Your task to perform on an android device: Clear the shopping cart on walmart.com. Search for corsair k70 on walmart.com, select the first entry, and add it to the cart. Image 0: 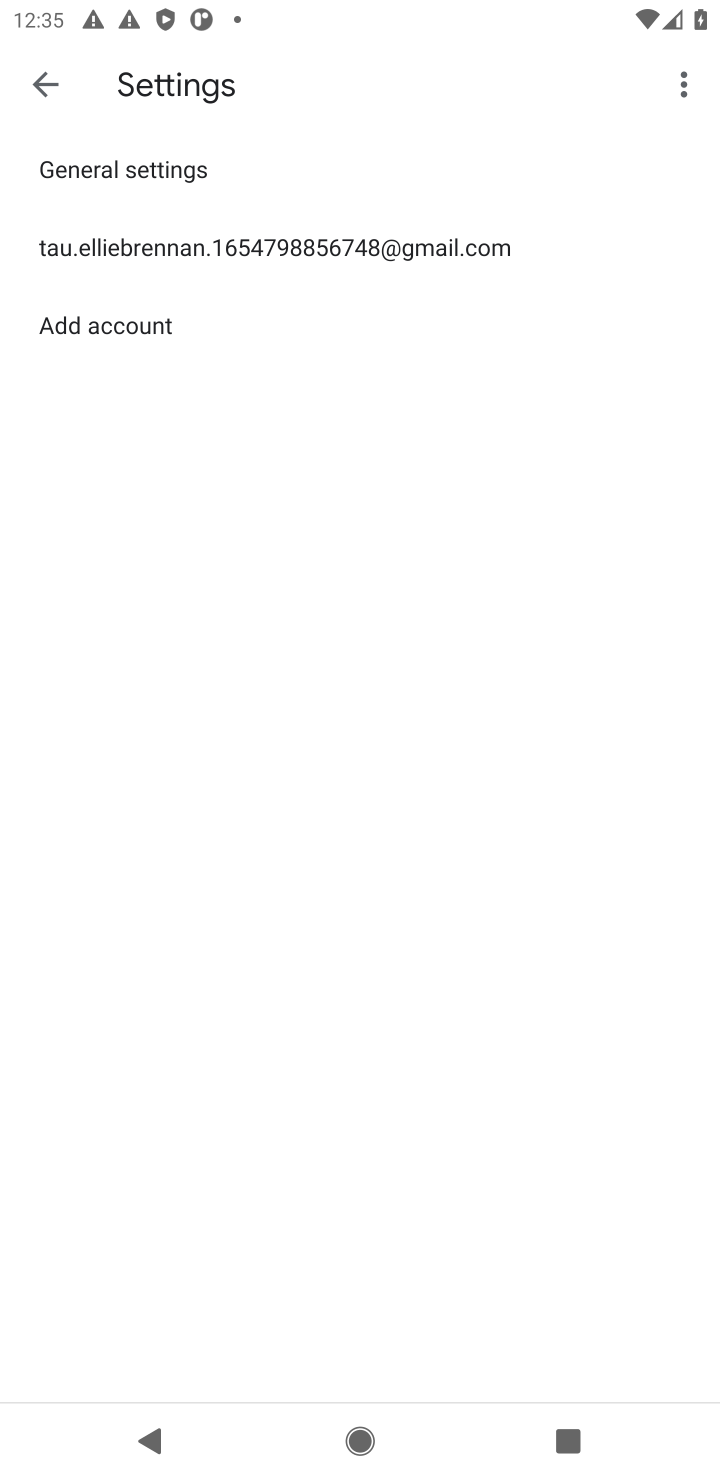
Step 0: press home button
Your task to perform on an android device: Clear the shopping cart on walmart.com. Search for corsair k70 on walmart.com, select the first entry, and add it to the cart. Image 1: 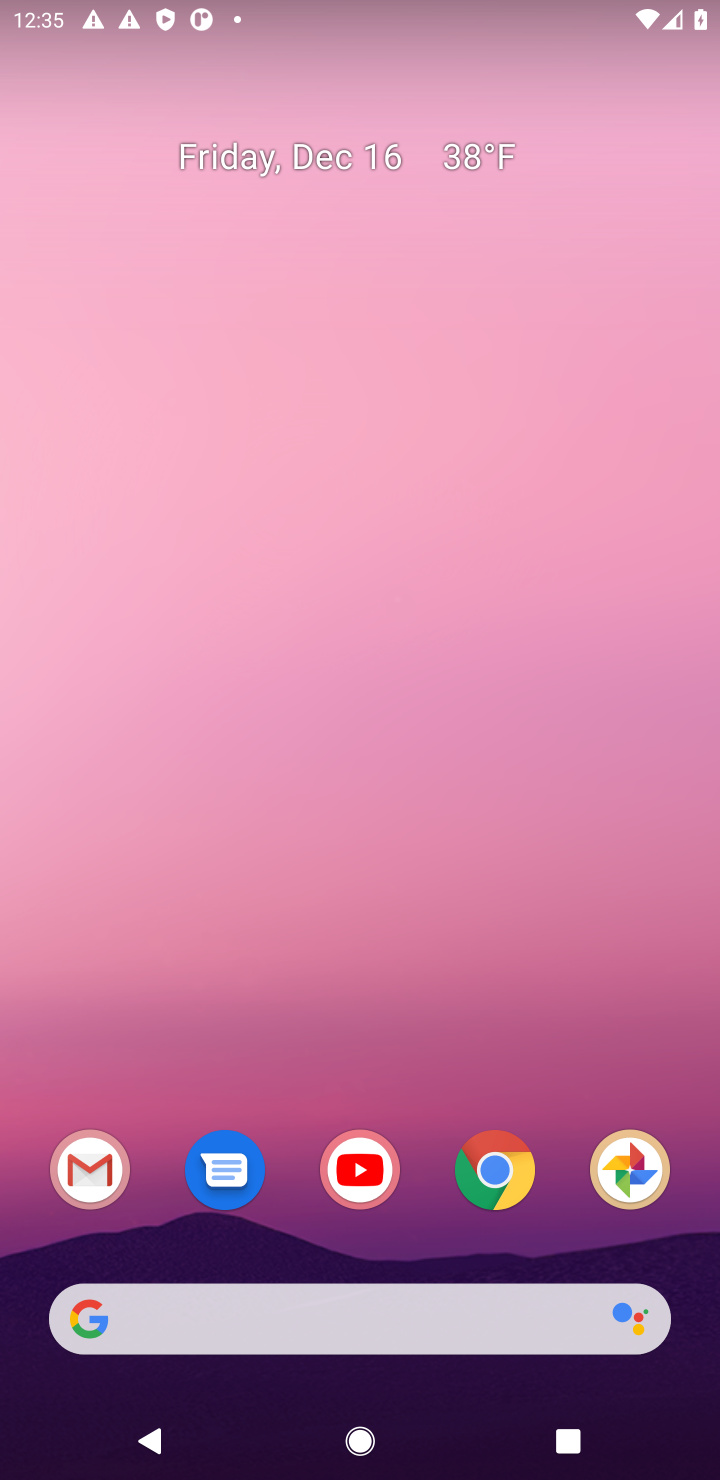
Step 1: click (503, 1174)
Your task to perform on an android device: Clear the shopping cart on walmart.com. Search for corsair k70 on walmart.com, select the first entry, and add it to the cart. Image 2: 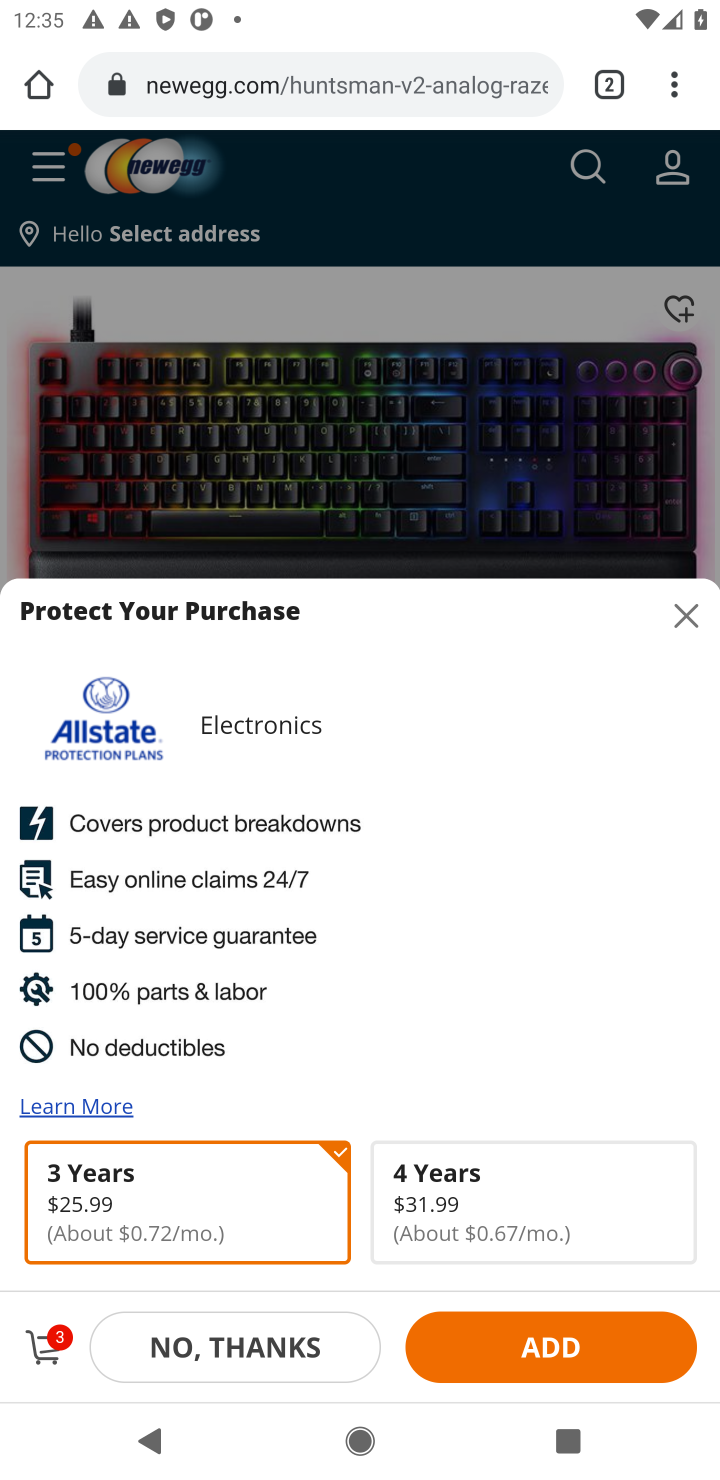
Step 2: click (230, 89)
Your task to perform on an android device: Clear the shopping cart on walmart.com. Search for corsair k70 on walmart.com, select the first entry, and add it to the cart. Image 3: 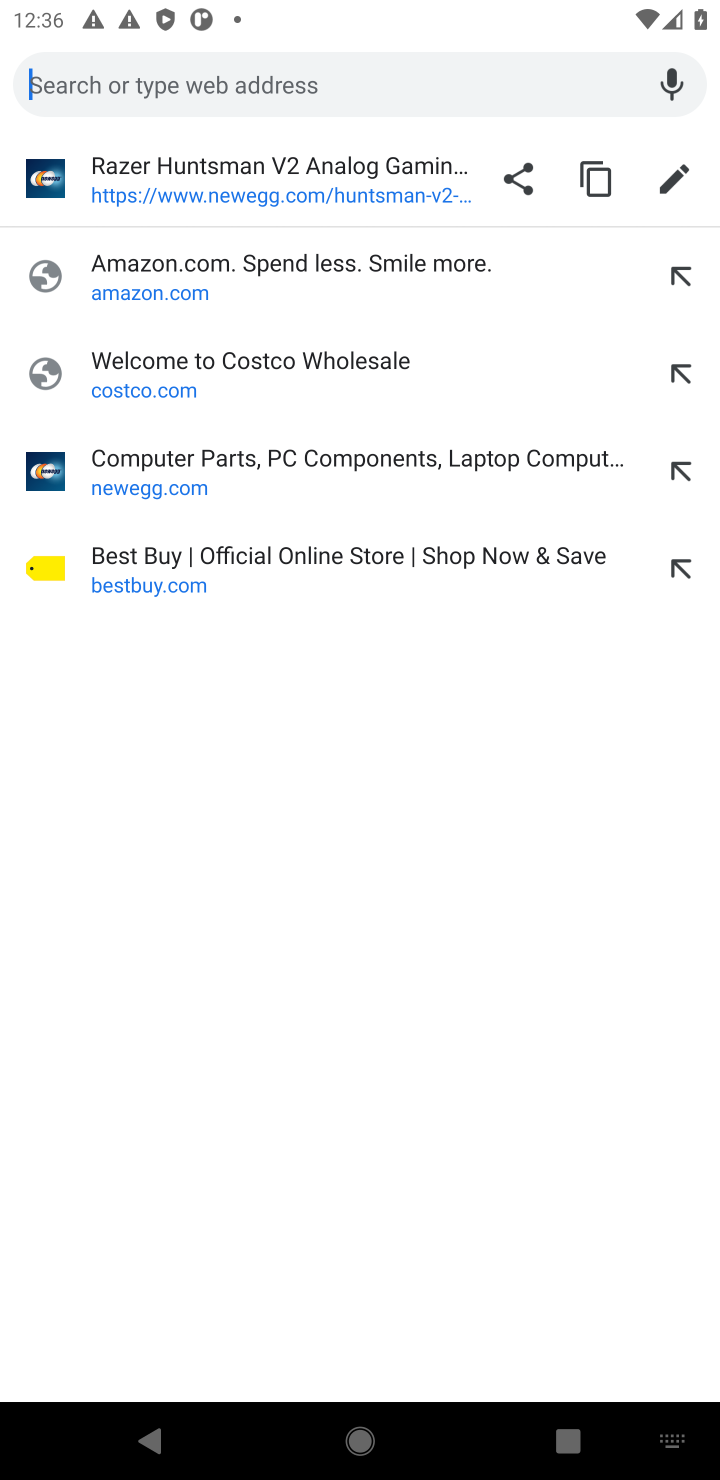
Step 3: type "walmart.com"
Your task to perform on an android device: Clear the shopping cart on walmart.com. Search for corsair k70 on walmart.com, select the first entry, and add it to the cart. Image 4: 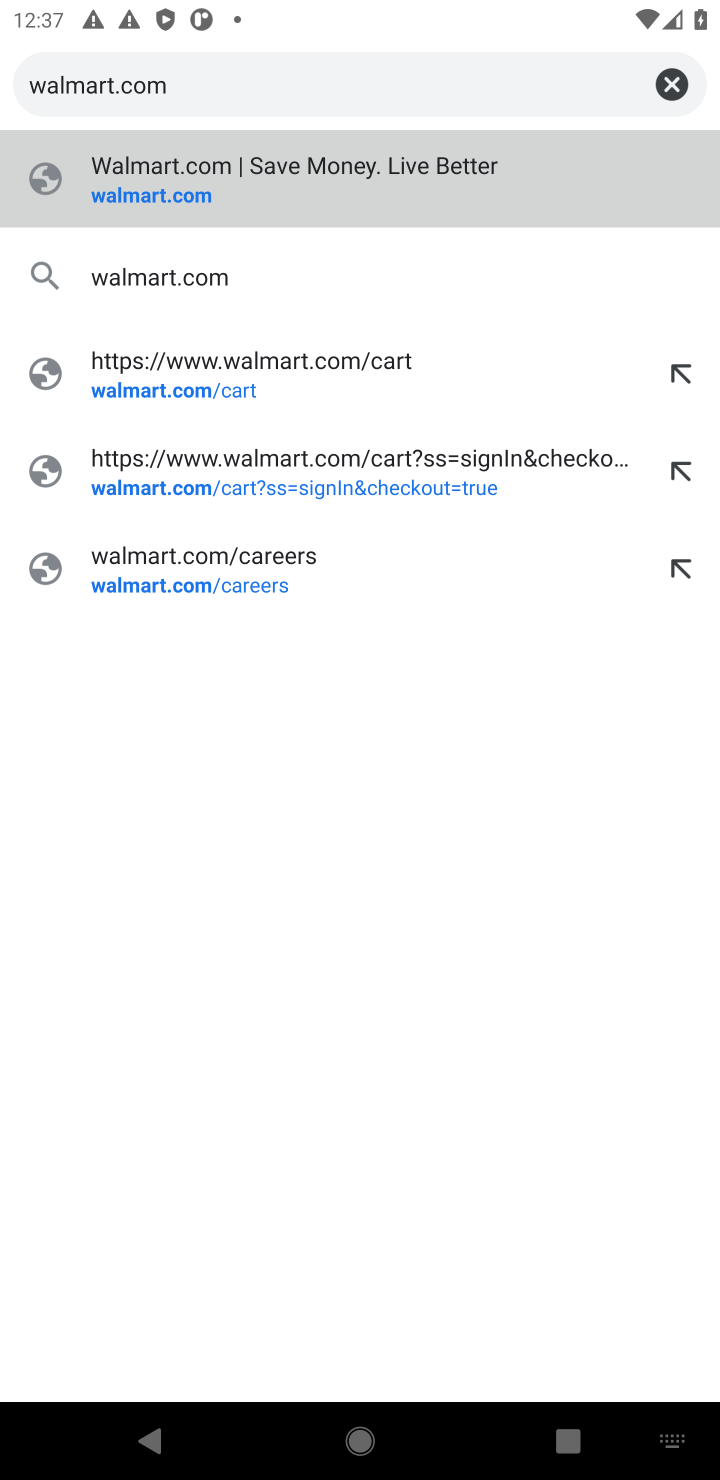
Step 4: click (178, 199)
Your task to perform on an android device: Clear the shopping cart on walmart.com. Search for corsair k70 on walmart.com, select the first entry, and add it to the cart. Image 5: 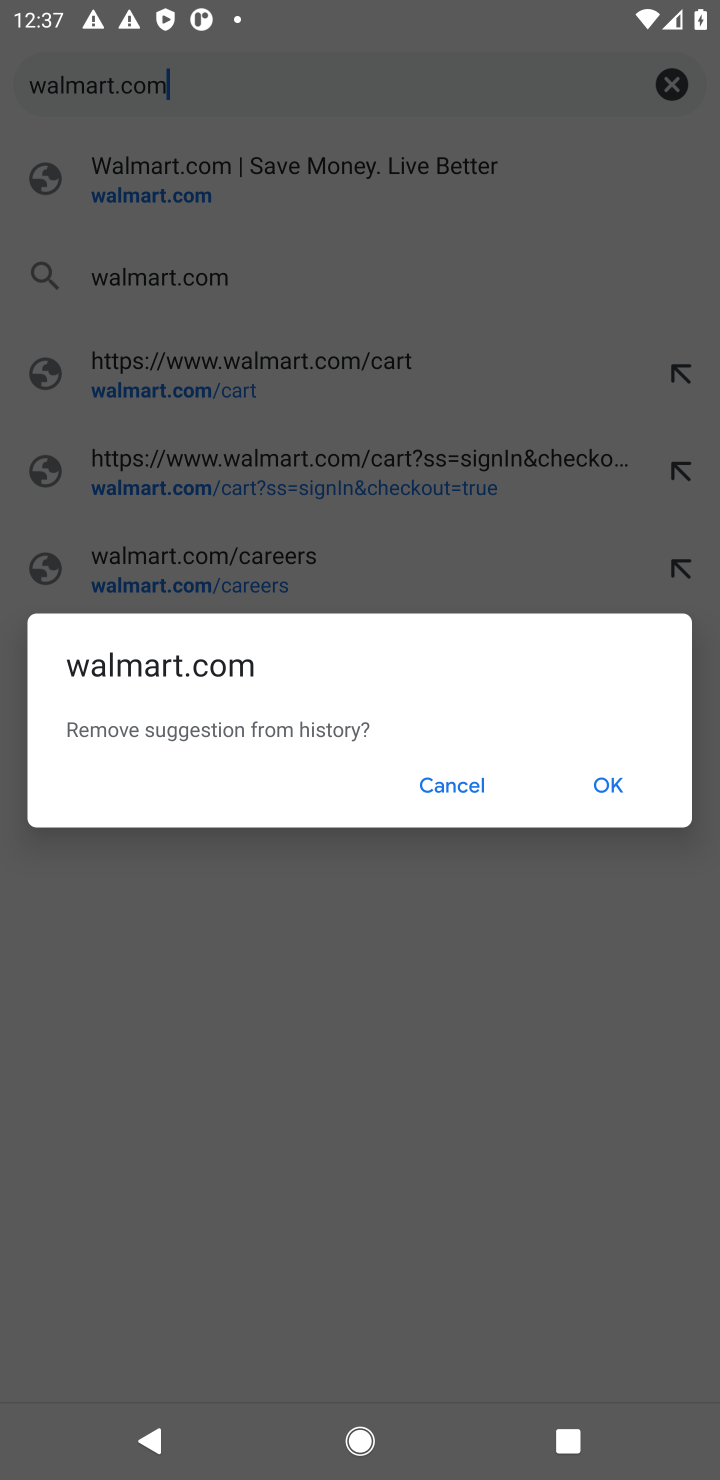
Step 5: click (460, 792)
Your task to perform on an android device: Clear the shopping cart on walmart.com. Search for corsair k70 on walmart.com, select the first entry, and add it to the cart. Image 6: 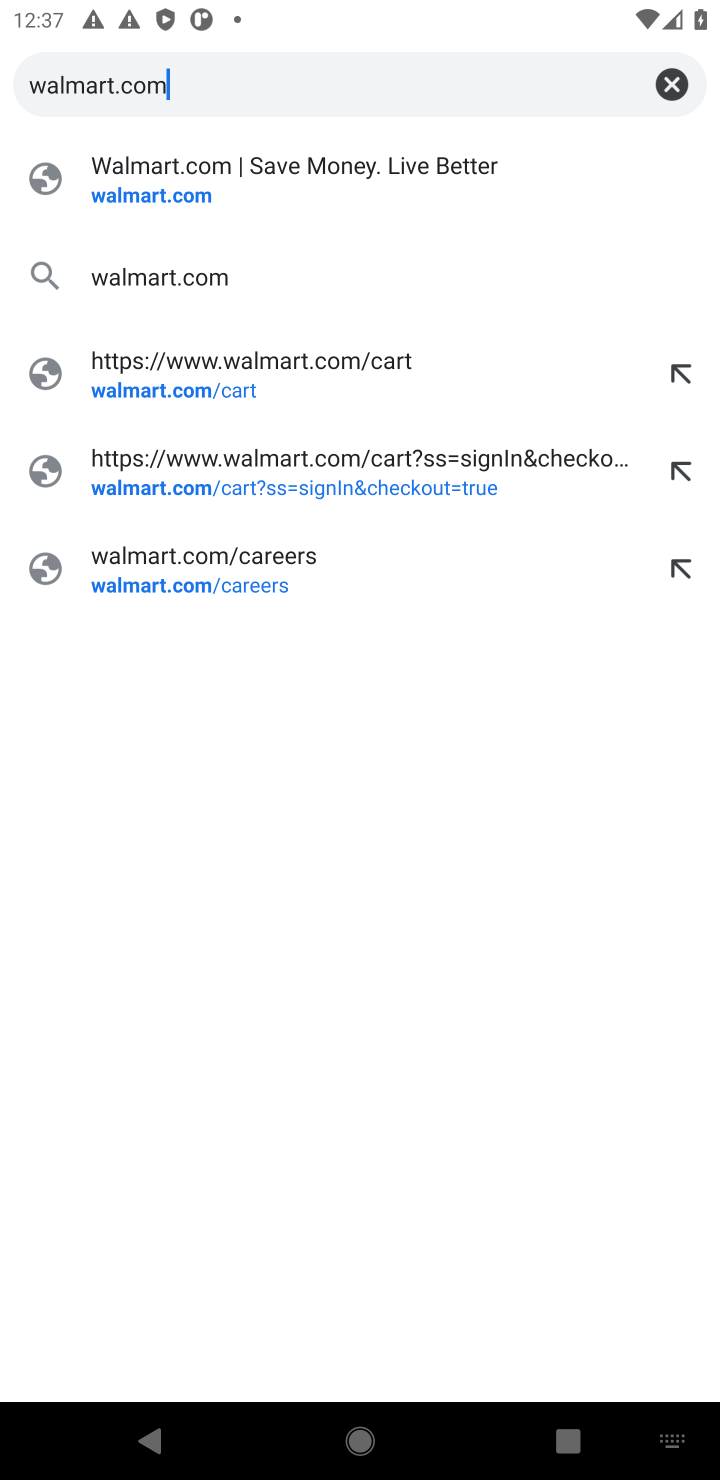
Step 6: click (155, 177)
Your task to perform on an android device: Clear the shopping cart on walmart.com. Search for corsair k70 on walmart.com, select the first entry, and add it to the cart. Image 7: 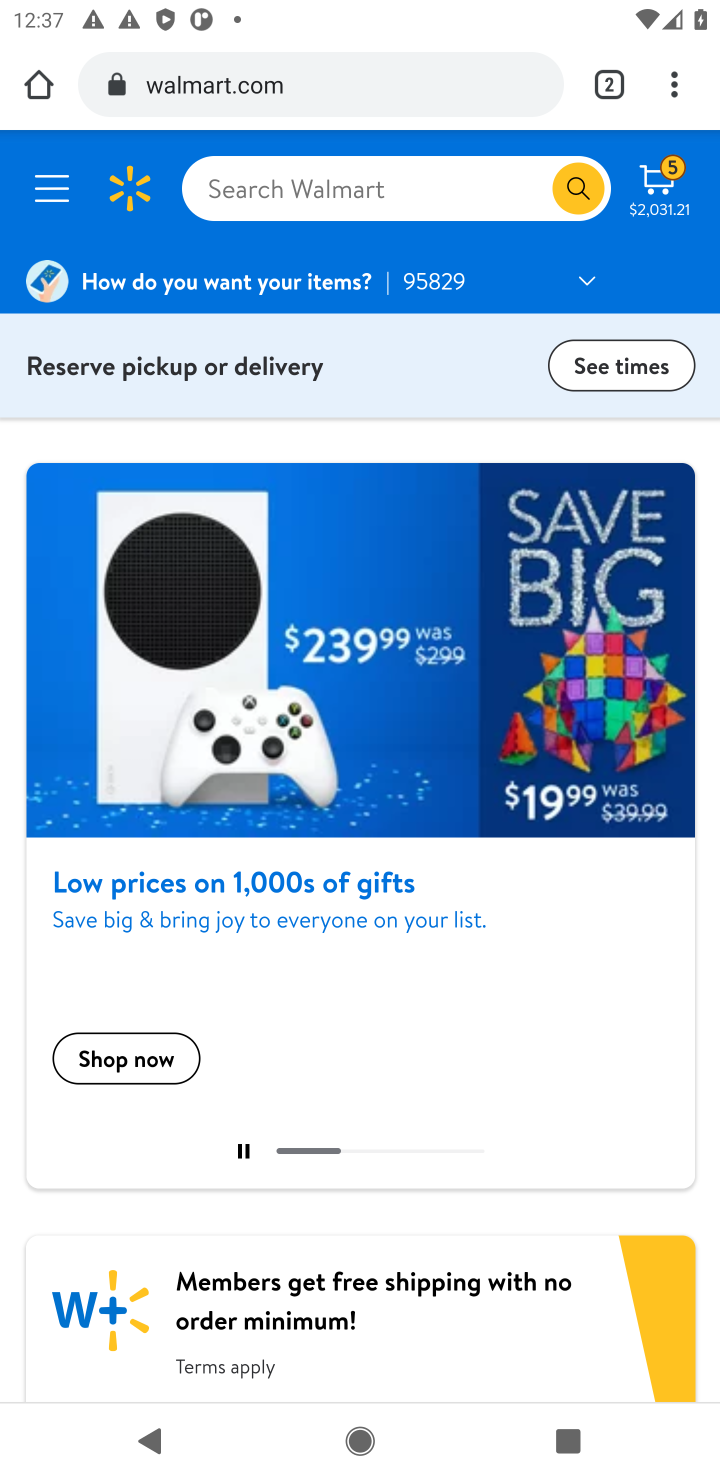
Step 7: click (664, 183)
Your task to perform on an android device: Clear the shopping cart on walmart.com. Search for corsair k70 on walmart.com, select the first entry, and add it to the cart. Image 8: 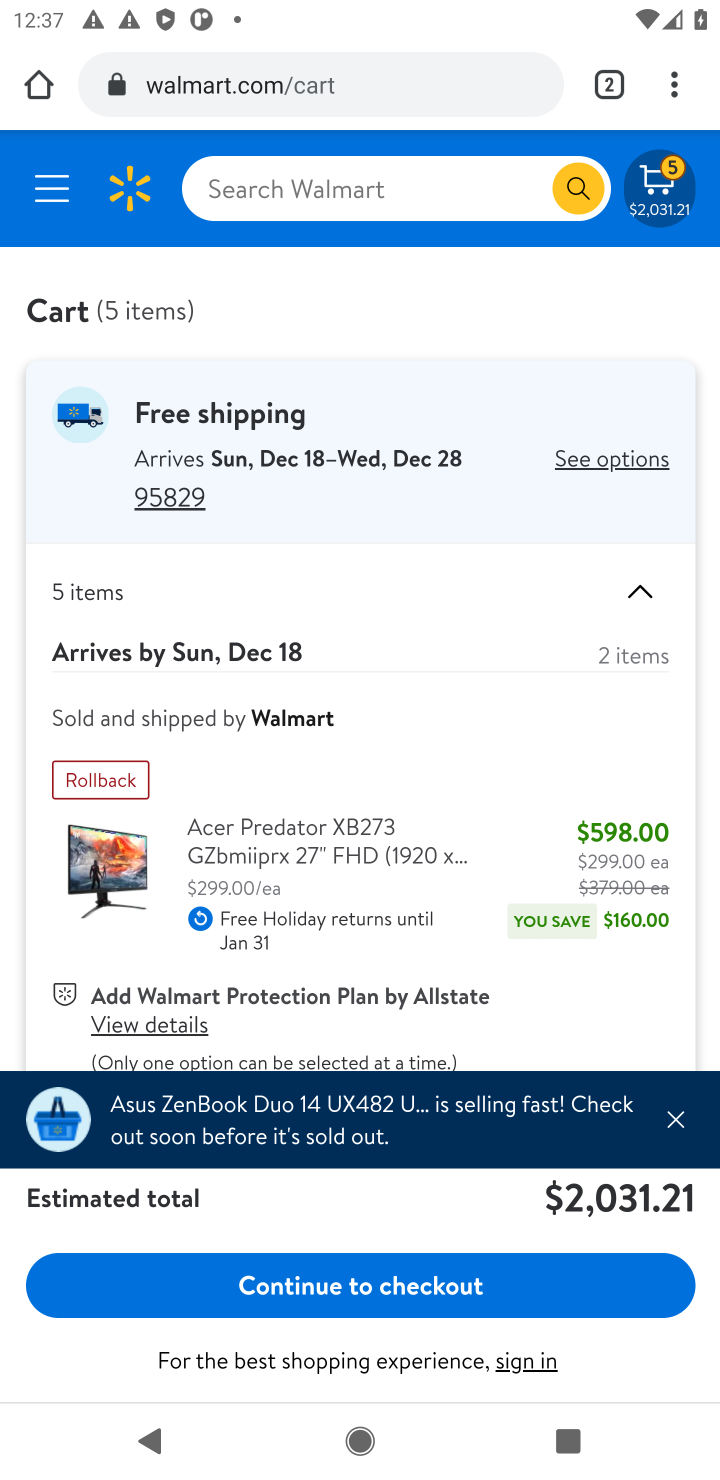
Step 8: drag from (410, 751) to (414, 363)
Your task to perform on an android device: Clear the shopping cart on walmart.com. Search for corsair k70 on walmart.com, select the first entry, and add it to the cart. Image 9: 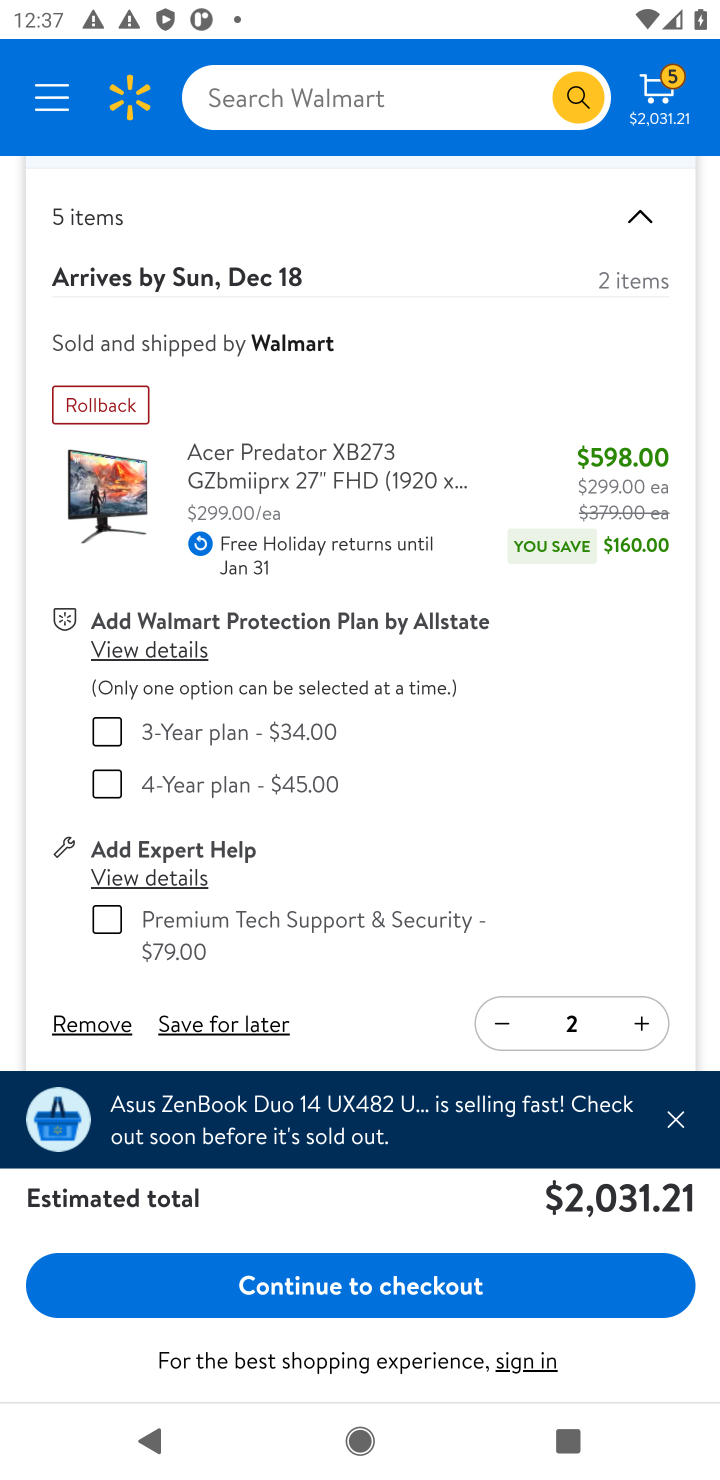
Step 9: drag from (310, 753) to (323, 388)
Your task to perform on an android device: Clear the shopping cart on walmart.com. Search for corsair k70 on walmart.com, select the first entry, and add it to the cart. Image 10: 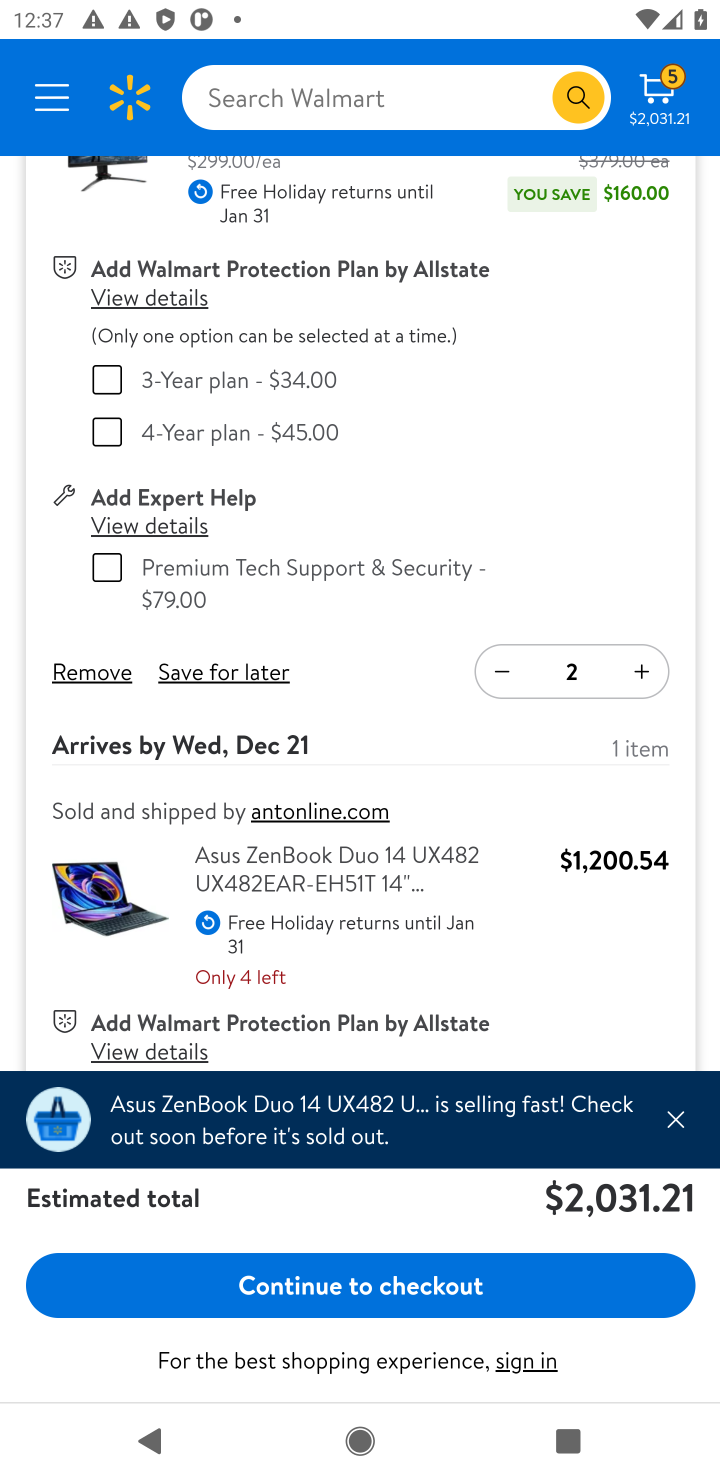
Step 10: click (74, 675)
Your task to perform on an android device: Clear the shopping cart on walmart.com. Search for corsair k70 on walmart.com, select the first entry, and add it to the cart. Image 11: 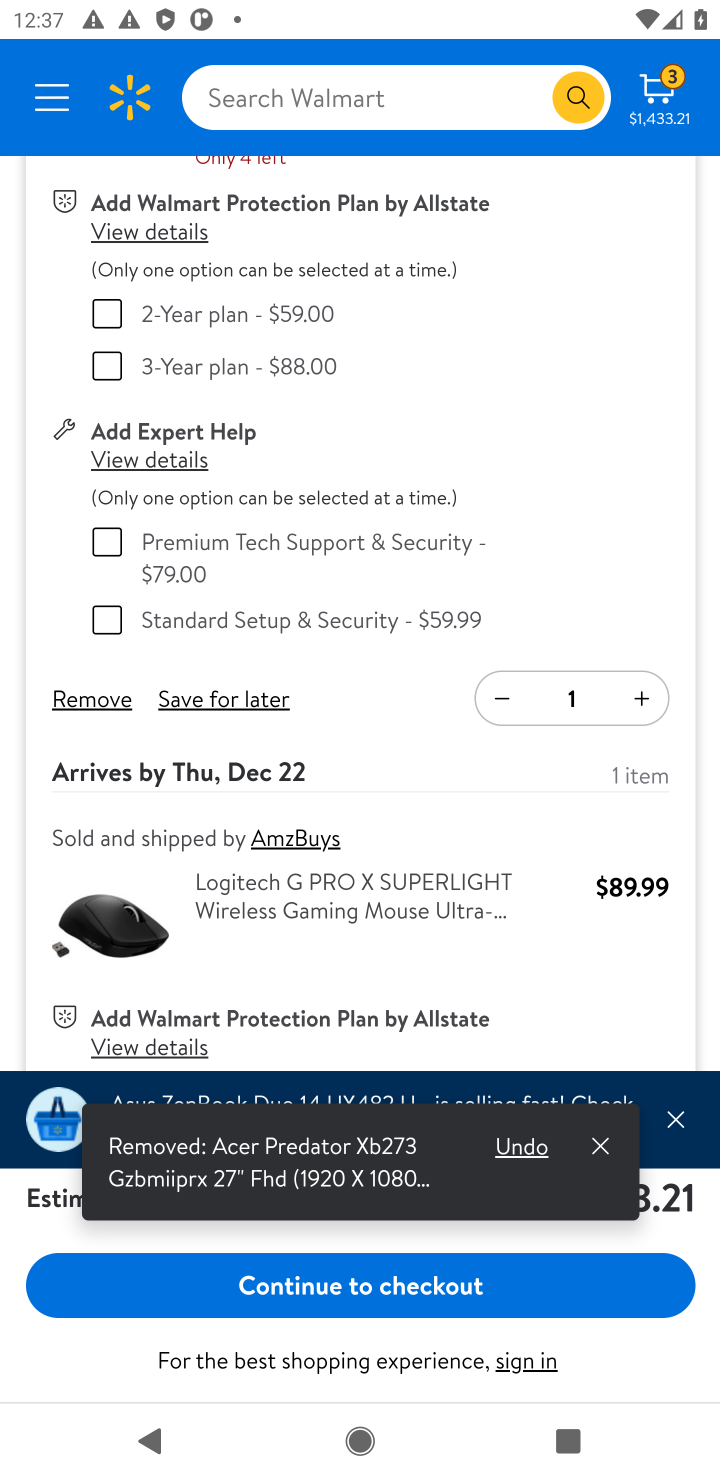
Step 11: click (74, 748)
Your task to perform on an android device: Clear the shopping cart on walmart.com. Search for corsair k70 on walmart.com, select the first entry, and add it to the cart. Image 12: 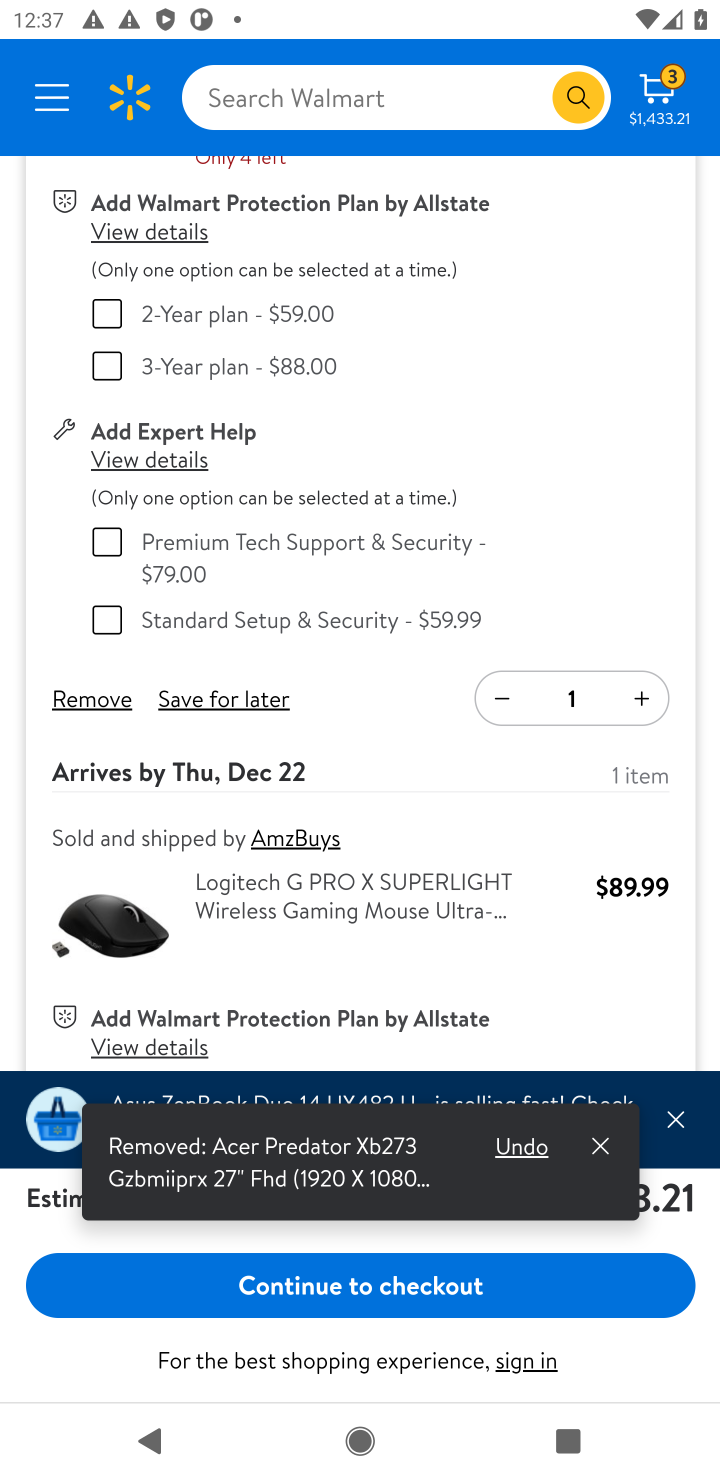
Step 12: click (88, 710)
Your task to perform on an android device: Clear the shopping cart on walmart.com. Search for corsair k70 on walmart.com, select the first entry, and add it to the cart. Image 13: 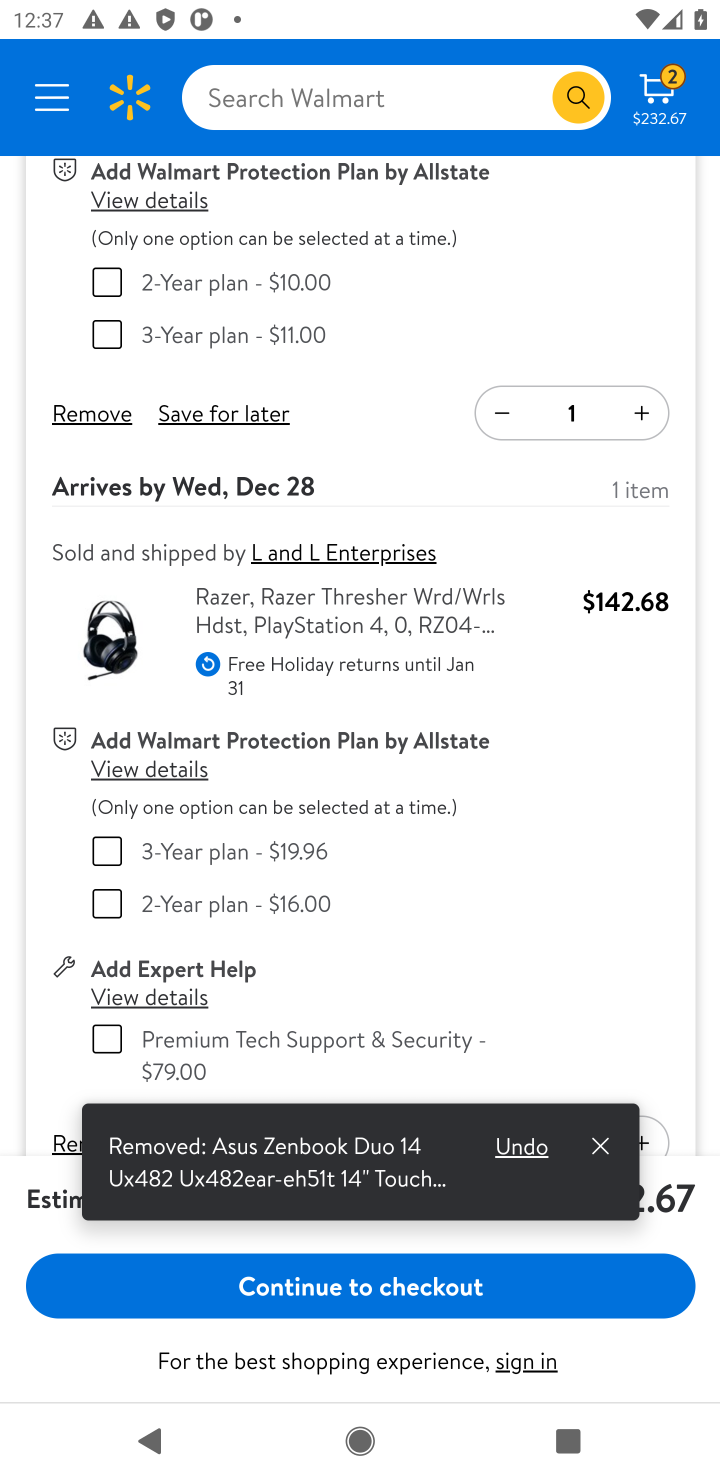
Step 13: click (78, 417)
Your task to perform on an android device: Clear the shopping cart on walmart.com. Search for corsair k70 on walmart.com, select the first entry, and add it to the cart. Image 14: 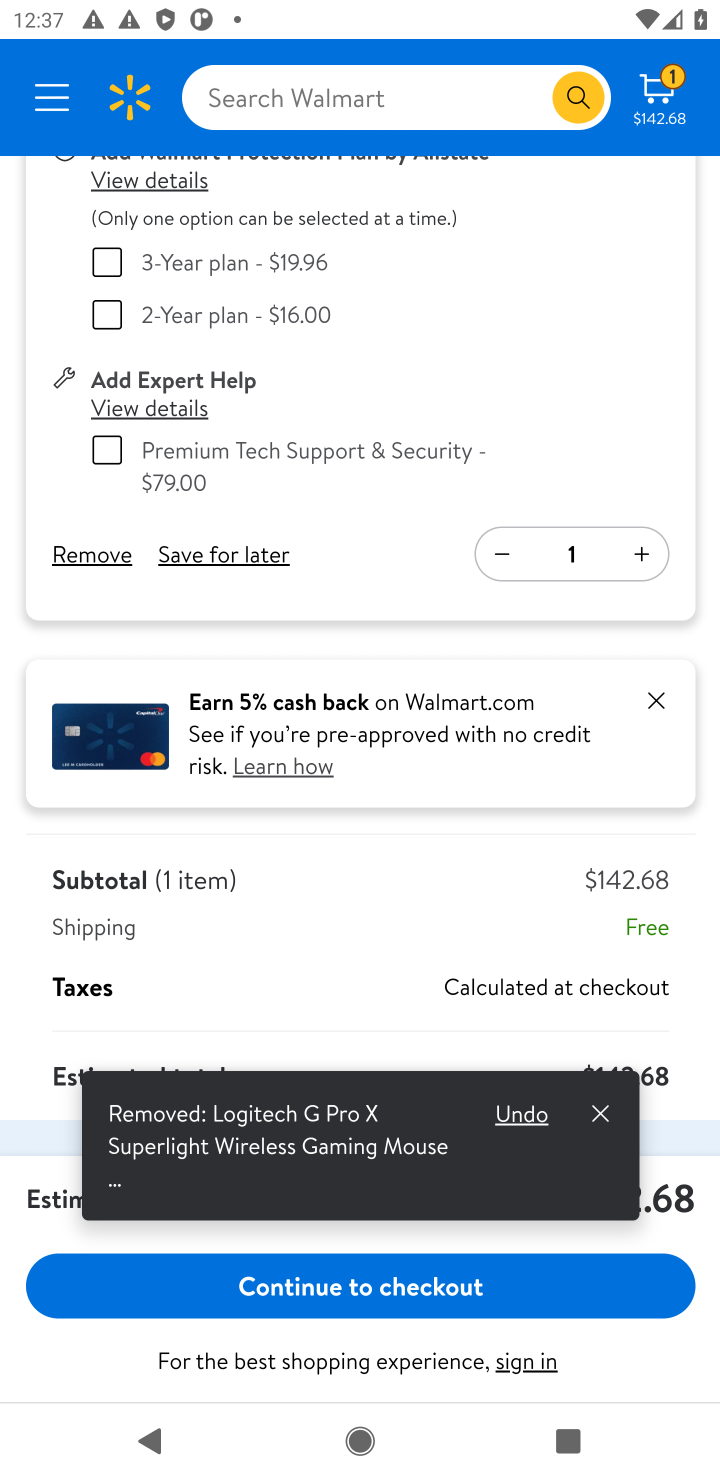
Step 14: click (89, 559)
Your task to perform on an android device: Clear the shopping cart on walmart.com. Search for corsair k70 on walmart.com, select the first entry, and add it to the cart. Image 15: 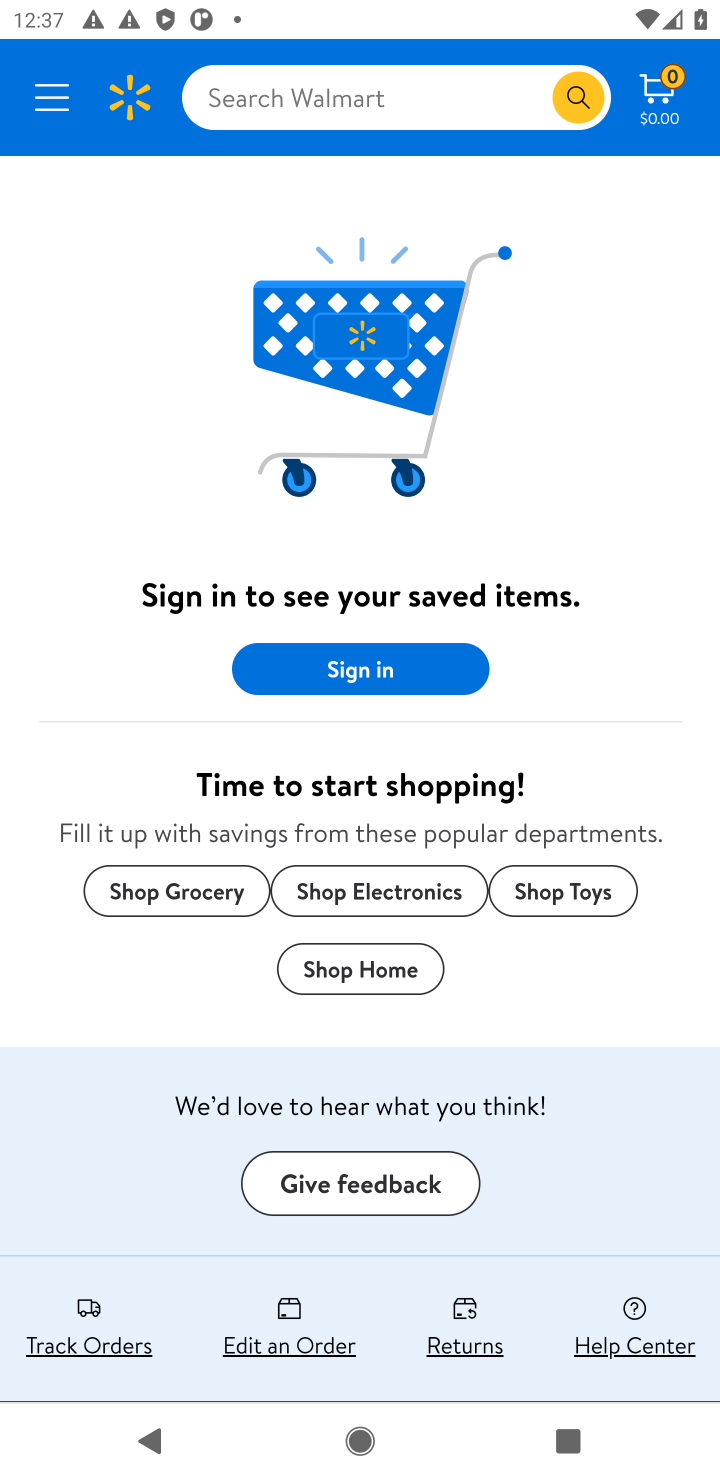
Step 15: click (259, 108)
Your task to perform on an android device: Clear the shopping cart on walmart.com. Search for corsair k70 on walmart.com, select the first entry, and add it to the cart. Image 16: 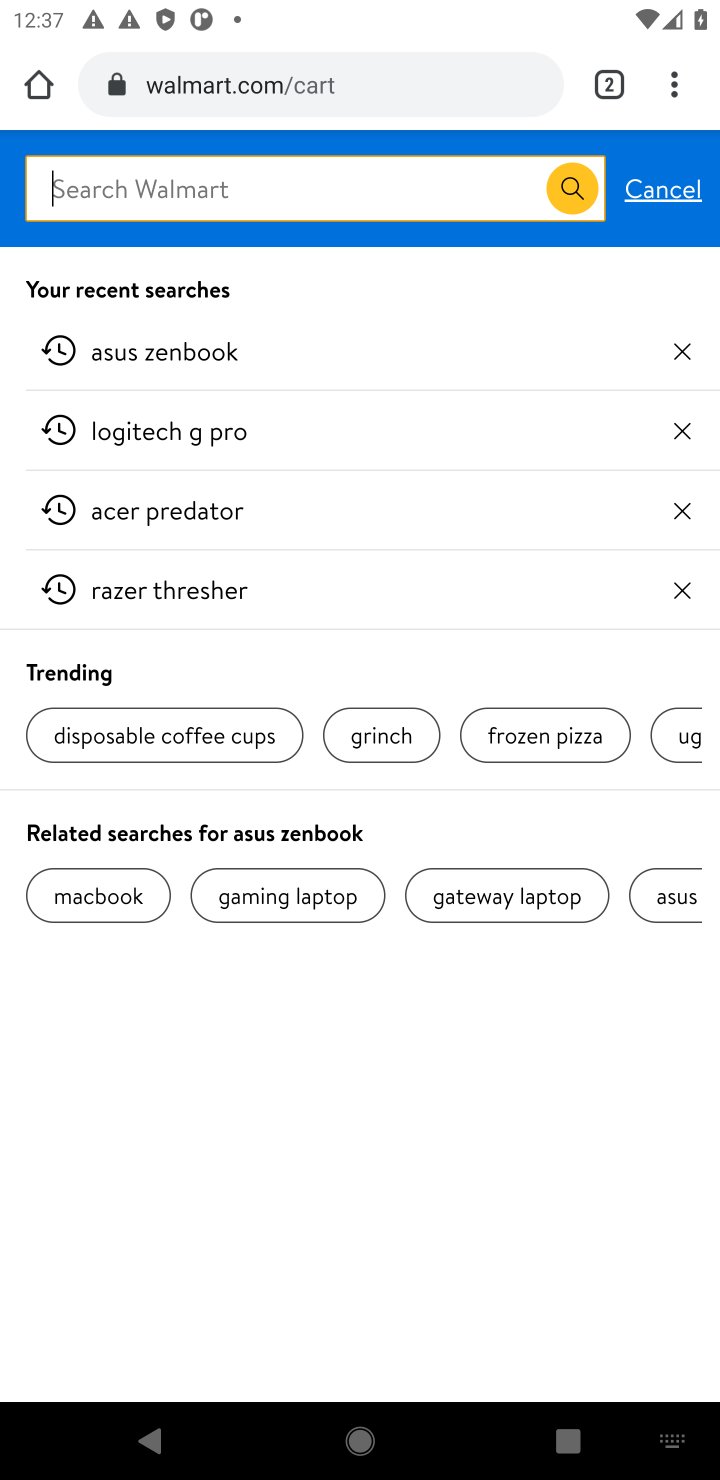
Step 16: type "corsair k70 "
Your task to perform on an android device: Clear the shopping cart on walmart.com. Search for corsair k70 on walmart.com, select the first entry, and add it to the cart. Image 17: 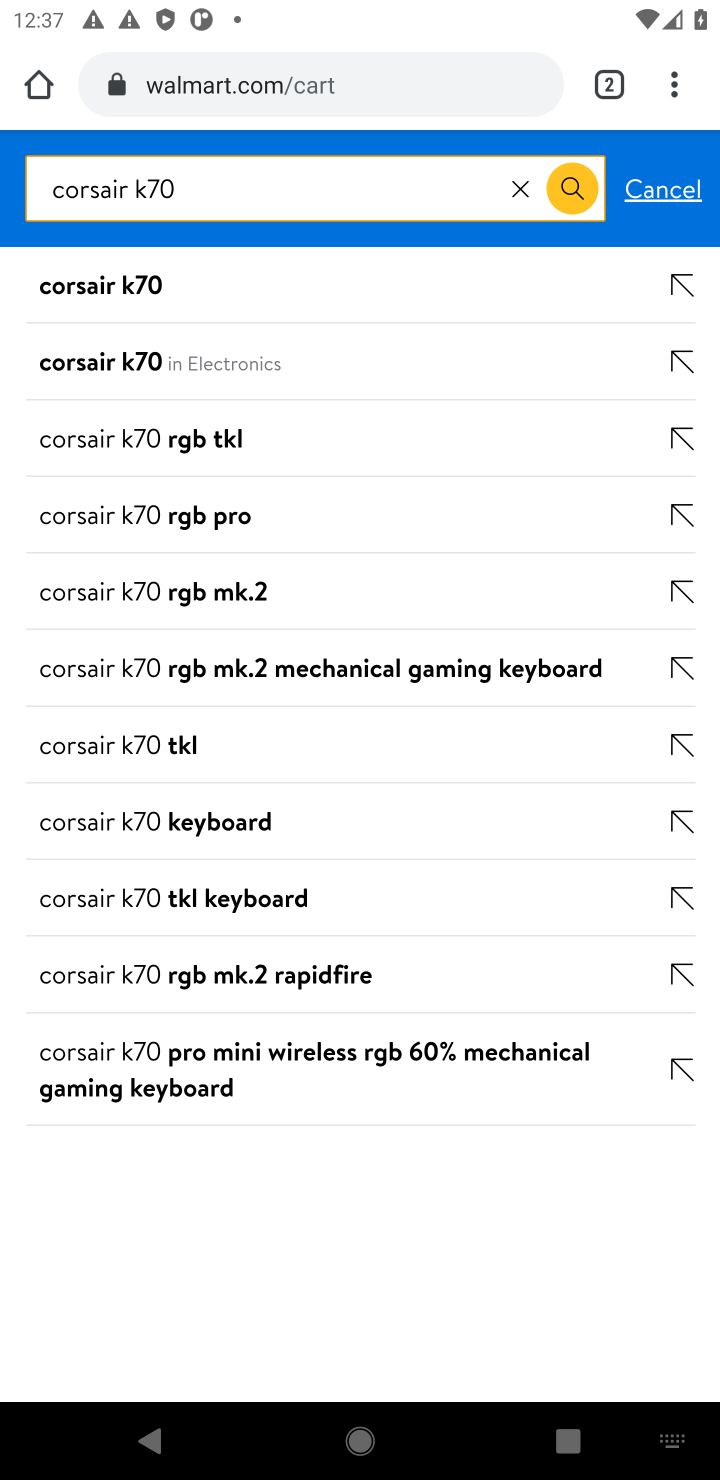
Step 17: click (94, 301)
Your task to perform on an android device: Clear the shopping cart on walmart.com. Search for corsair k70 on walmart.com, select the first entry, and add it to the cart. Image 18: 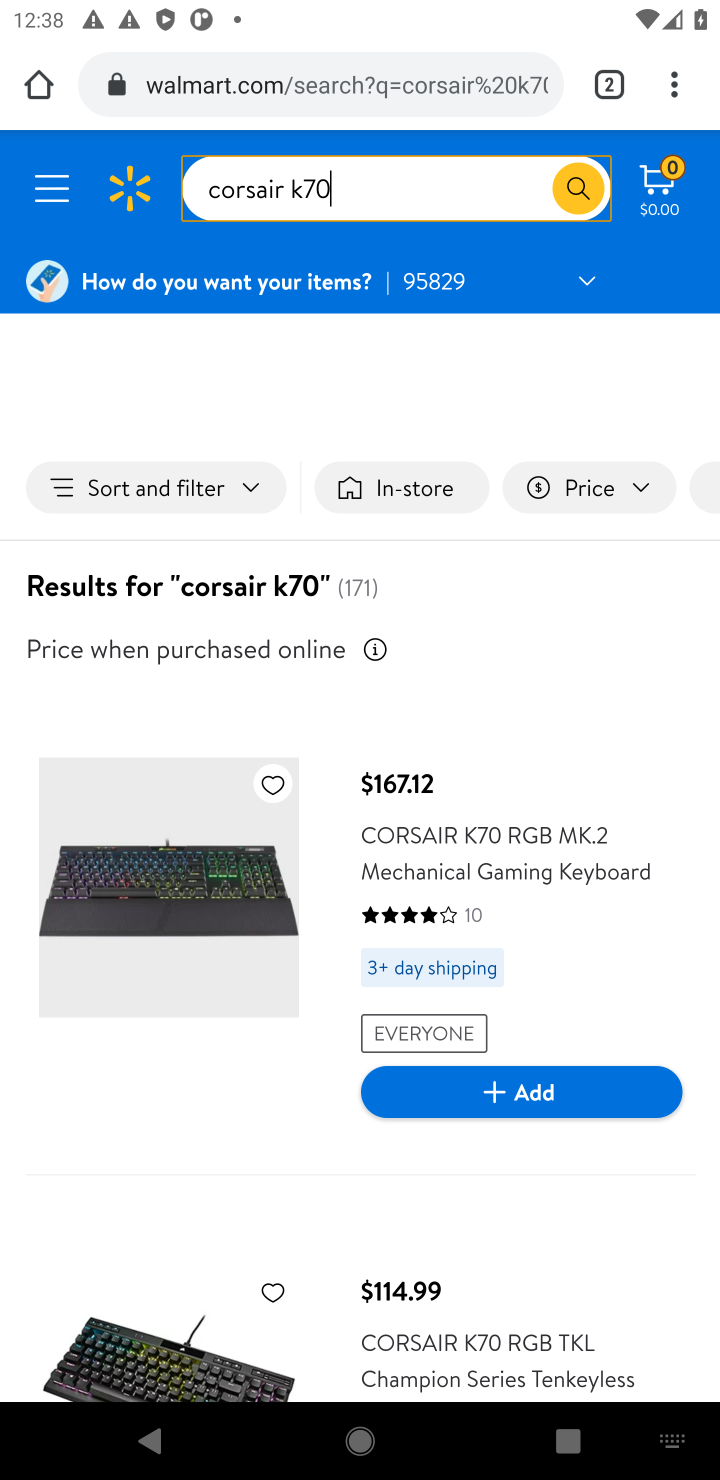
Step 18: click (553, 1101)
Your task to perform on an android device: Clear the shopping cart on walmart.com. Search for corsair k70 on walmart.com, select the first entry, and add it to the cart. Image 19: 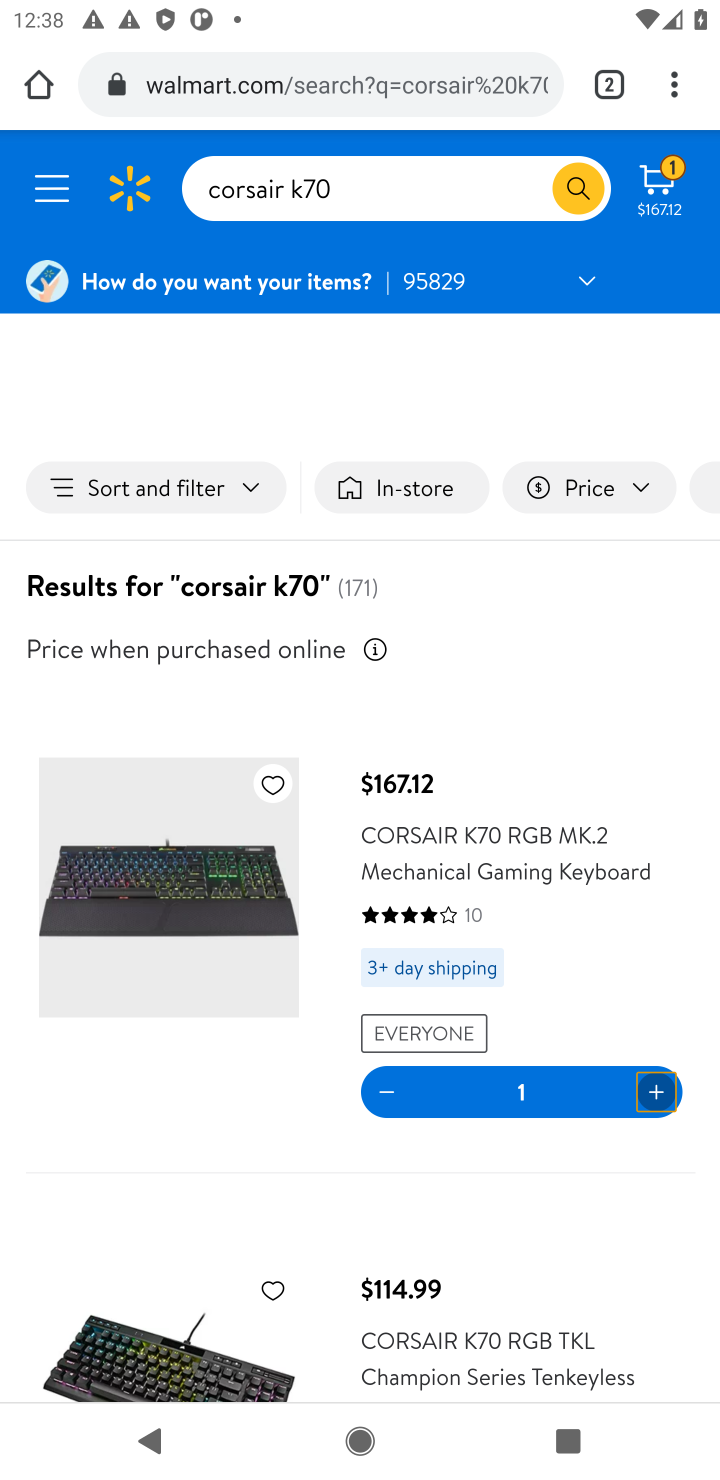
Step 19: task complete